Your task to perform on an android device: open app "Calculator" Image 0: 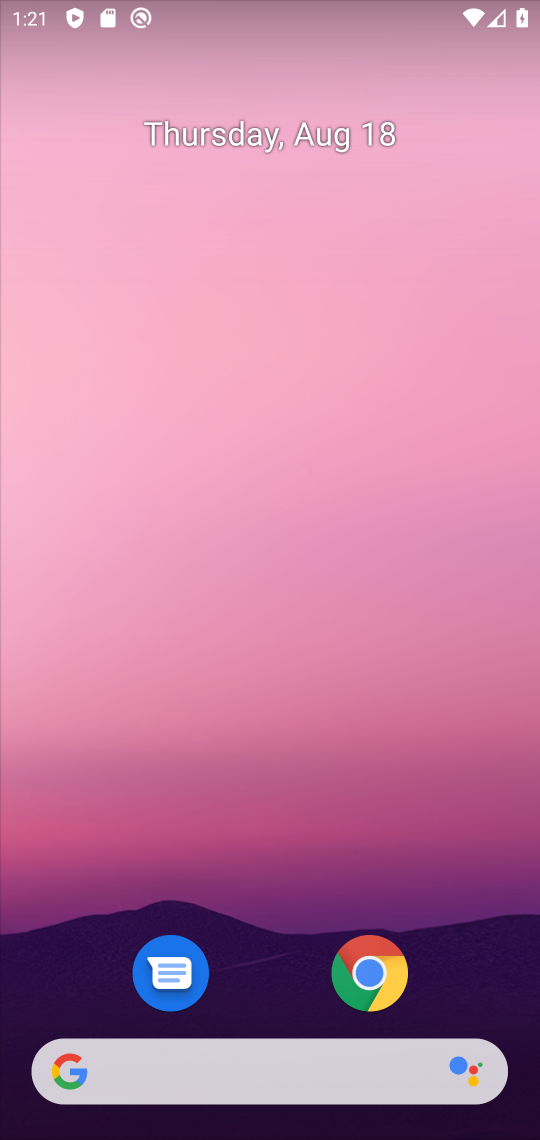
Step 0: drag from (282, 1031) to (276, 272)
Your task to perform on an android device: open app "Calculator" Image 1: 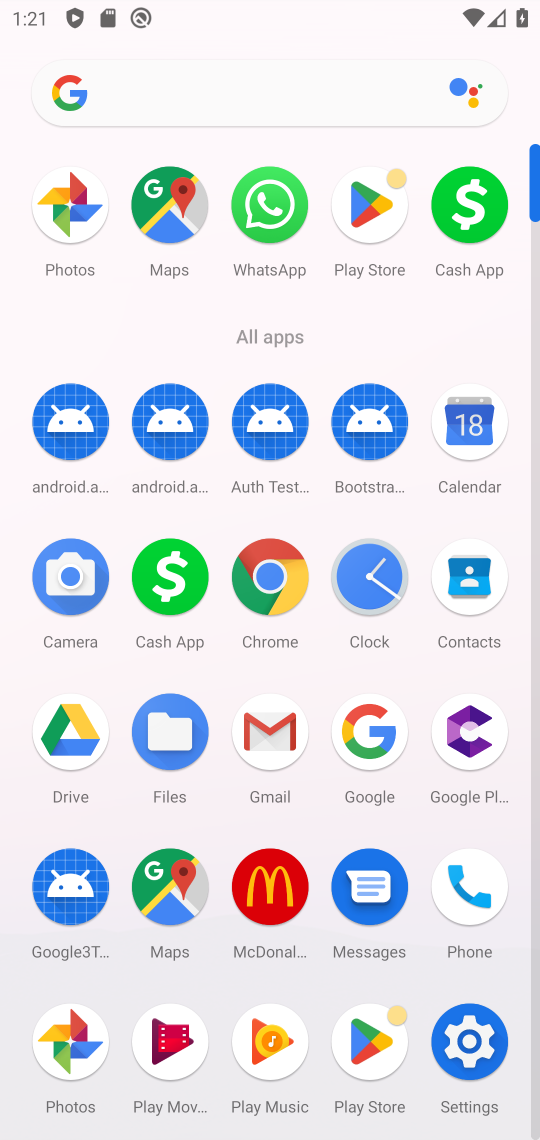
Step 1: click (349, 221)
Your task to perform on an android device: open app "Calculator" Image 2: 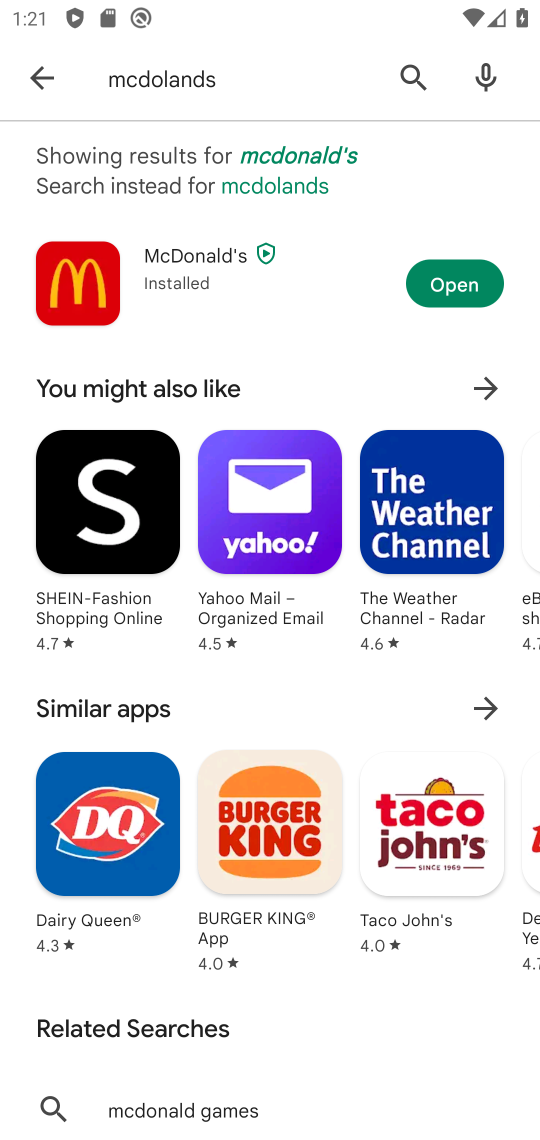
Step 2: click (411, 78)
Your task to perform on an android device: open app "Calculator" Image 3: 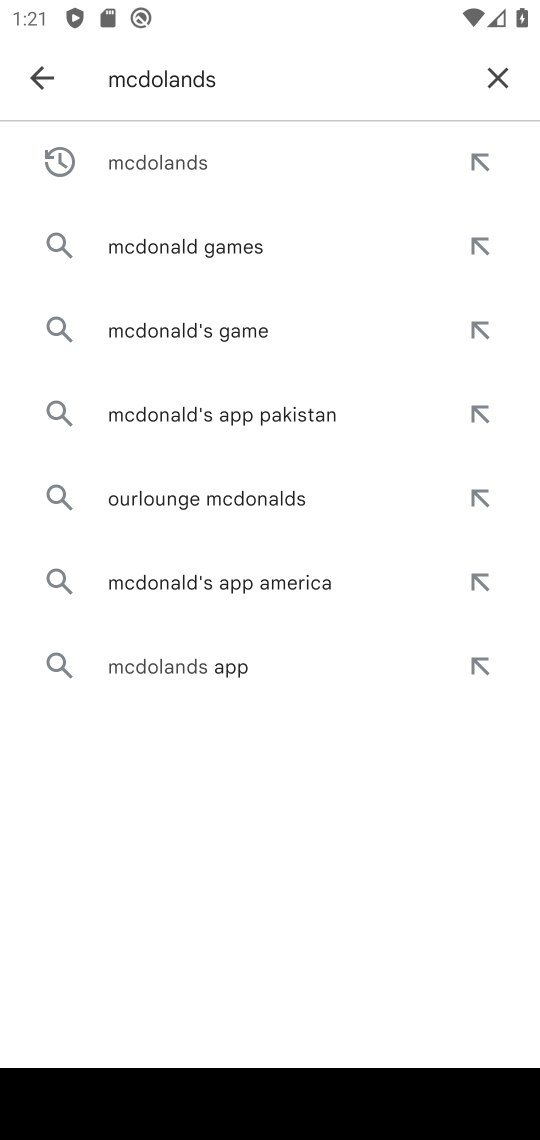
Step 3: click (494, 62)
Your task to perform on an android device: open app "Calculator" Image 4: 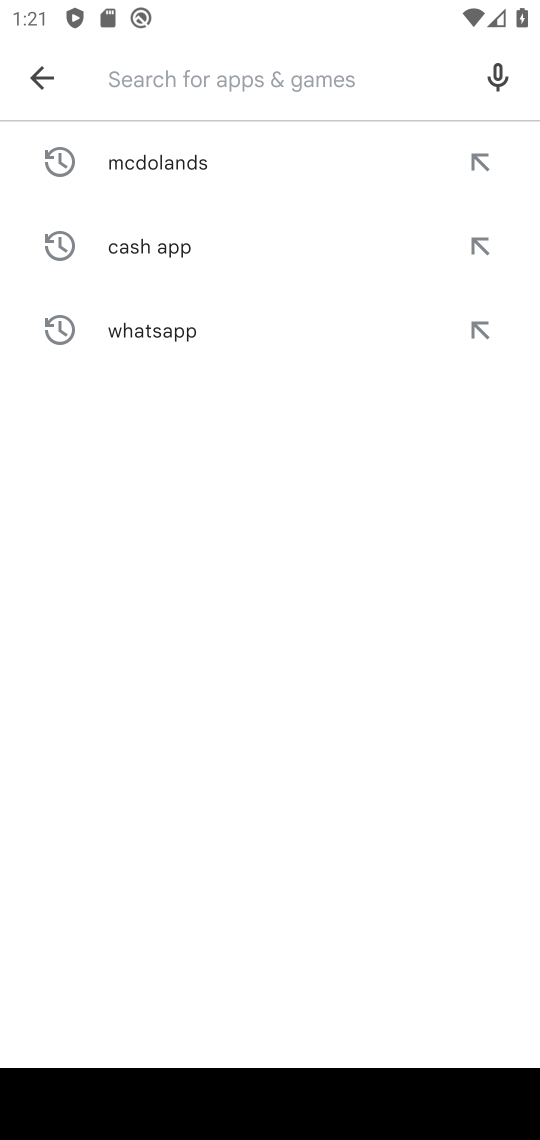
Step 4: type "calculator"
Your task to perform on an android device: open app "Calculator" Image 5: 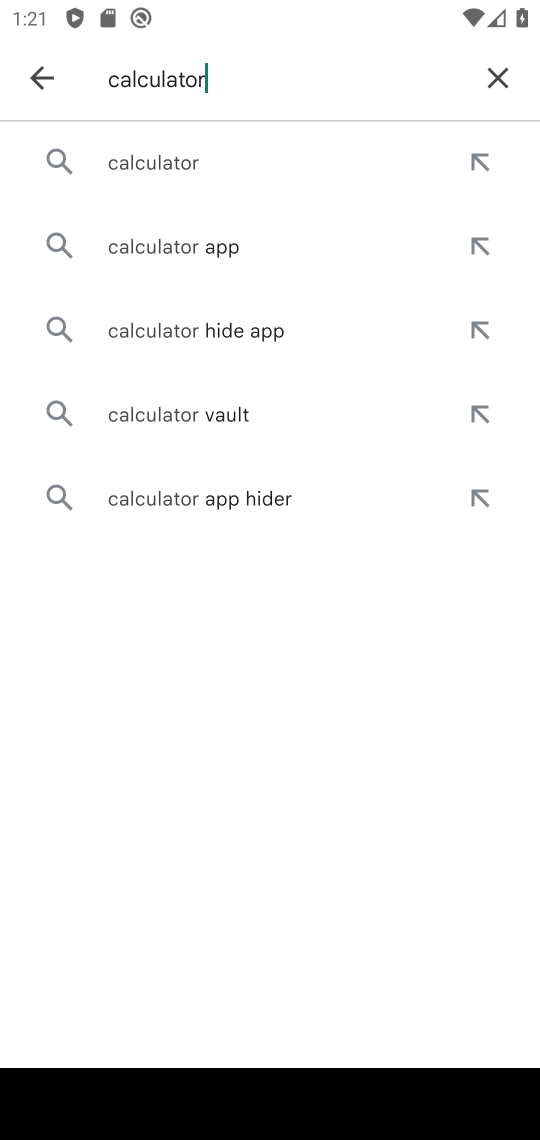
Step 5: click (280, 192)
Your task to perform on an android device: open app "Calculator" Image 6: 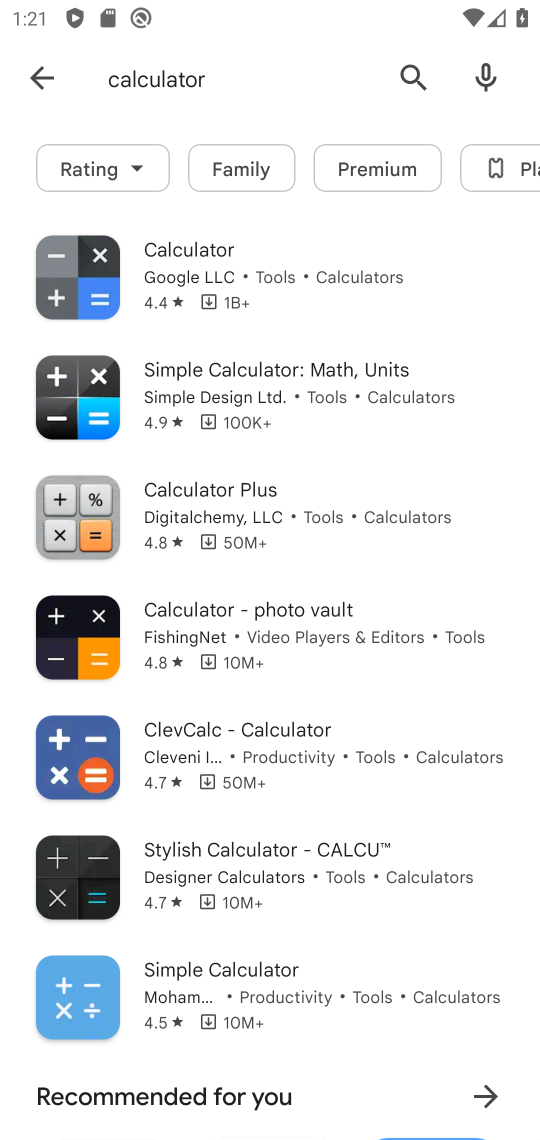
Step 6: click (223, 270)
Your task to perform on an android device: open app "Calculator" Image 7: 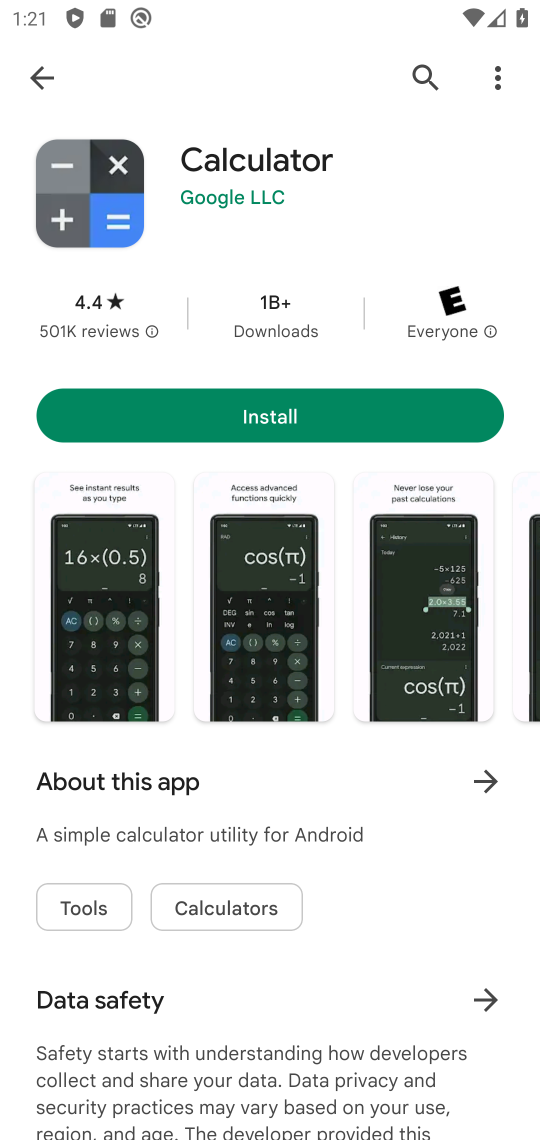
Step 7: click (274, 410)
Your task to perform on an android device: open app "Calculator" Image 8: 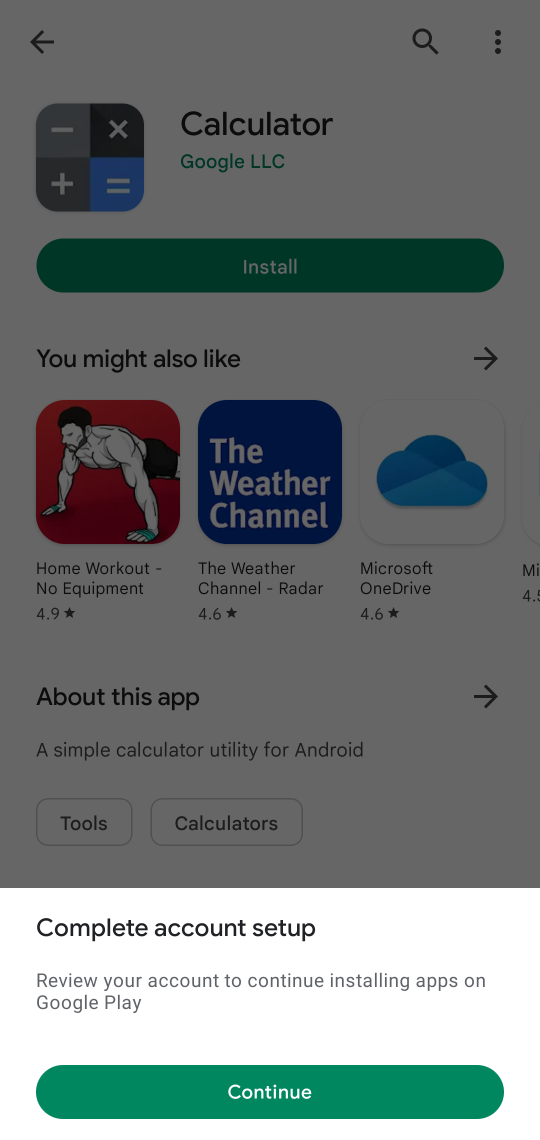
Step 8: click (137, 1099)
Your task to perform on an android device: open app "Calculator" Image 9: 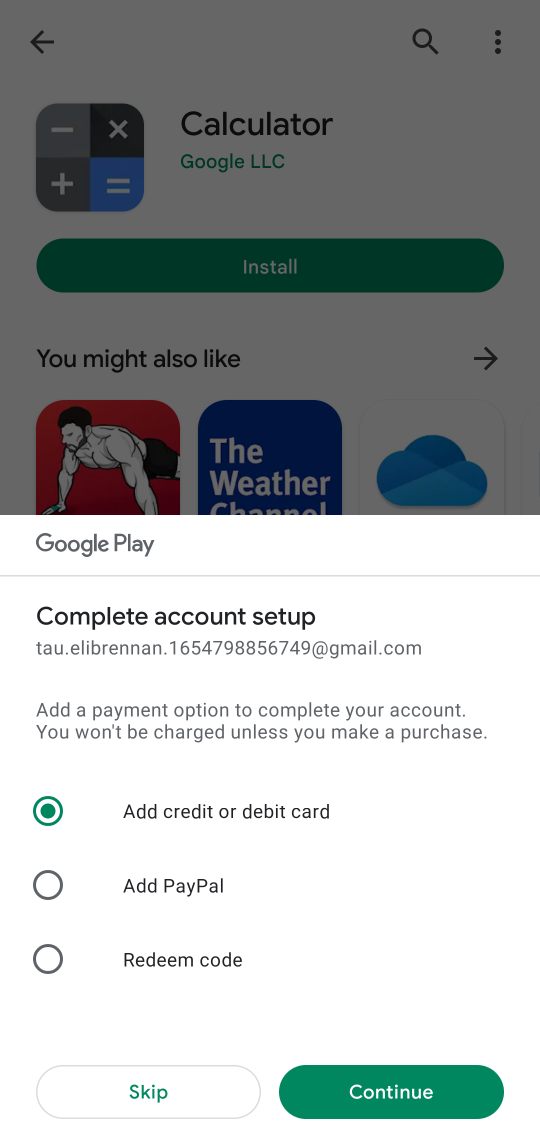
Step 9: click (132, 1104)
Your task to perform on an android device: open app "Calculator" Image 10: 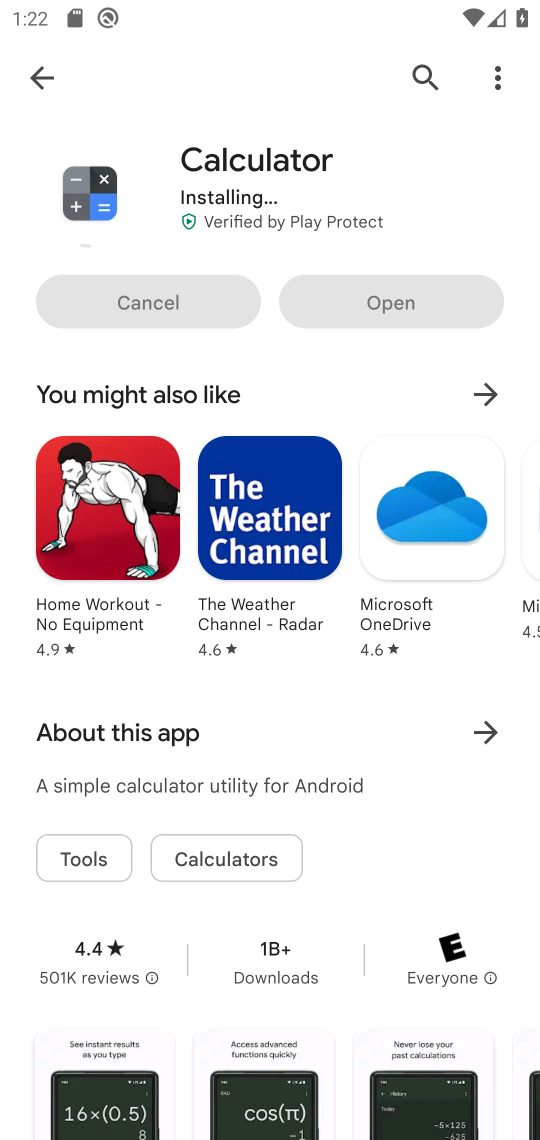
Step 10: task complete